Your task to perform on an android device: Go to eBay Image 0: 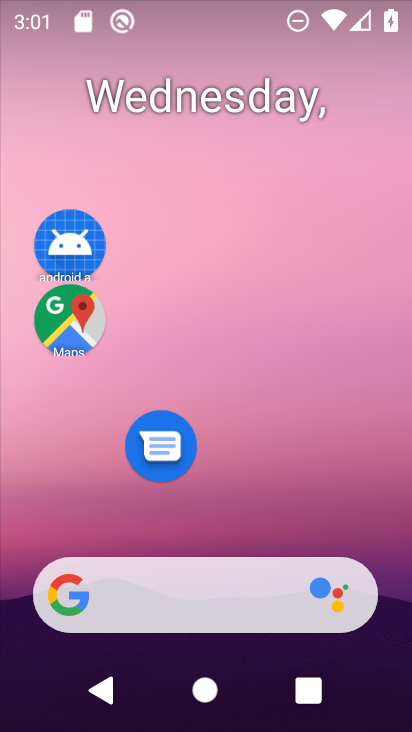
Step 0: drag from (255, 515) to (264, 46)
Your task to perform on an android device: Go to eBay Image 1: 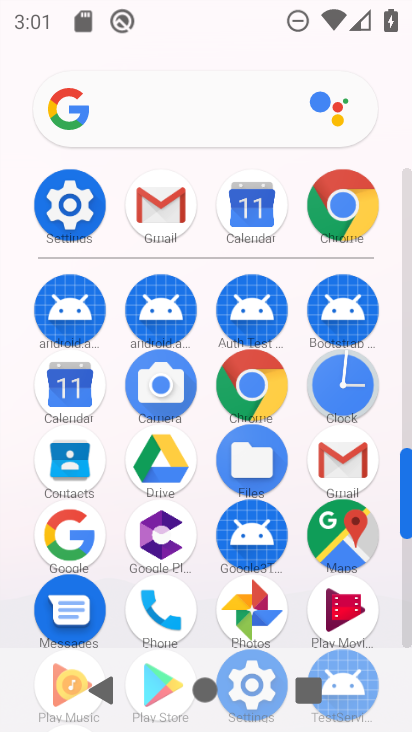
Step 1: click (332, 240)
Your task to perform on an android device: Go to eBay Image 2: 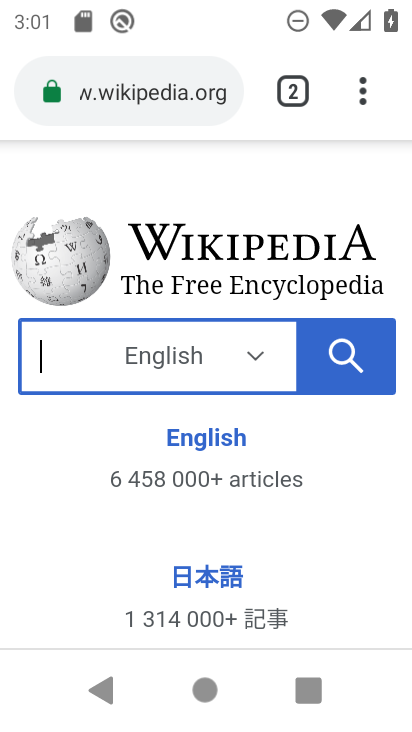
Step 2: click (195, 70)
Your task to perform on an android device: Go to eBay Image 3: 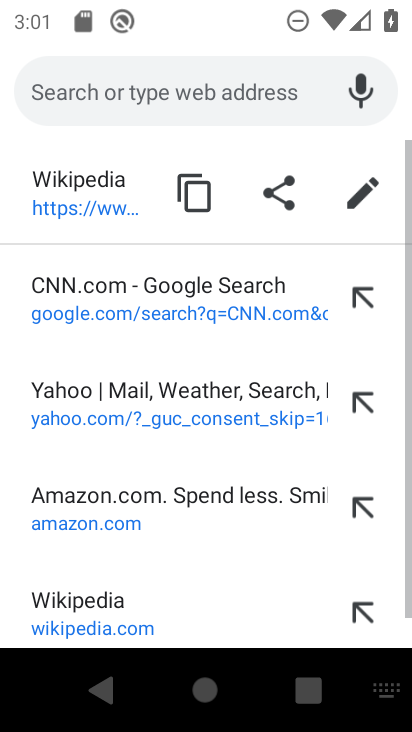
Step 3: drag from (181, 517) to (202, 281)
Your task to perform on an android device: Go to eBay Image 4: 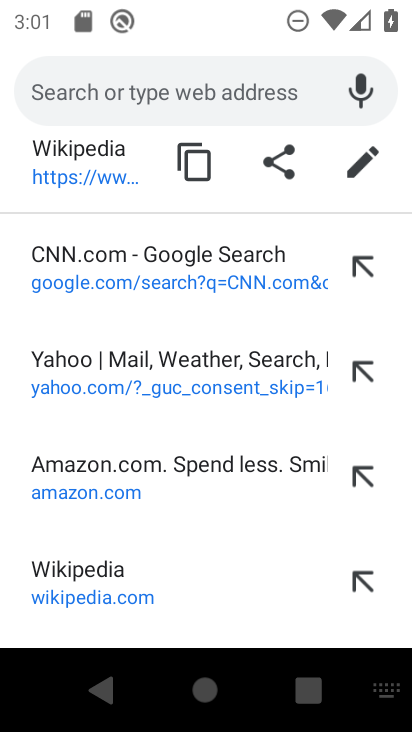
Step 4: click (122, 72)
Your task to perform on an android device: Go to eBay Image 5: 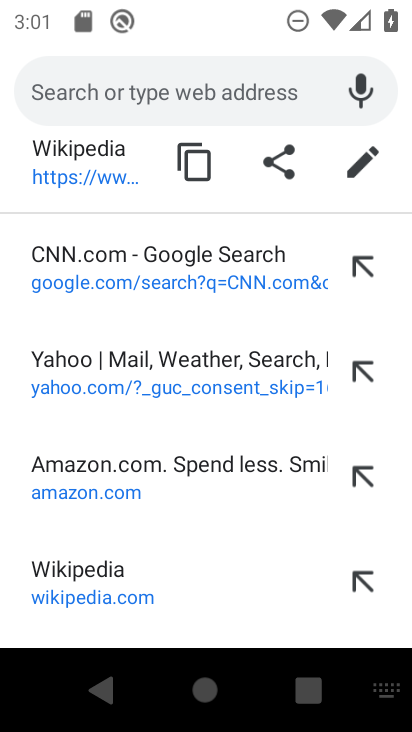
Step 5: type "ebay.com"
Your task to perform on an android device: Go to eBay Image 6: 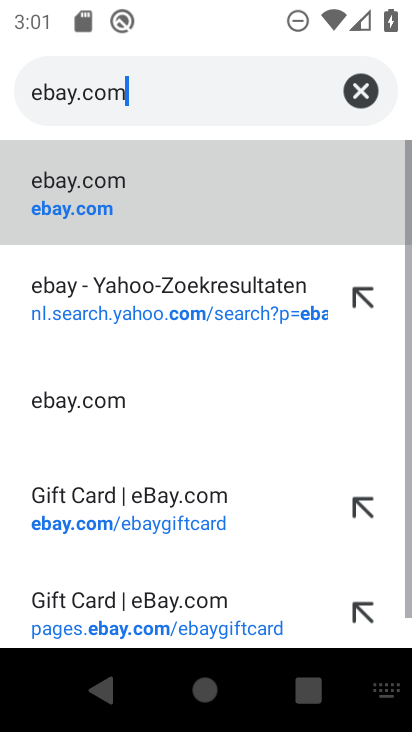
Step 6: click (109, 169)
Your task to perform on an android device: Go to eBay Image 7: 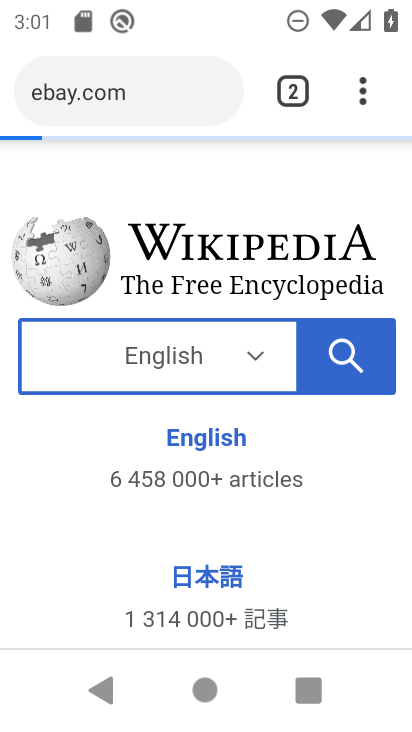
Step 7: task complete